Your task to perform on an android device: Do I have any events tomorrow? Image 0: 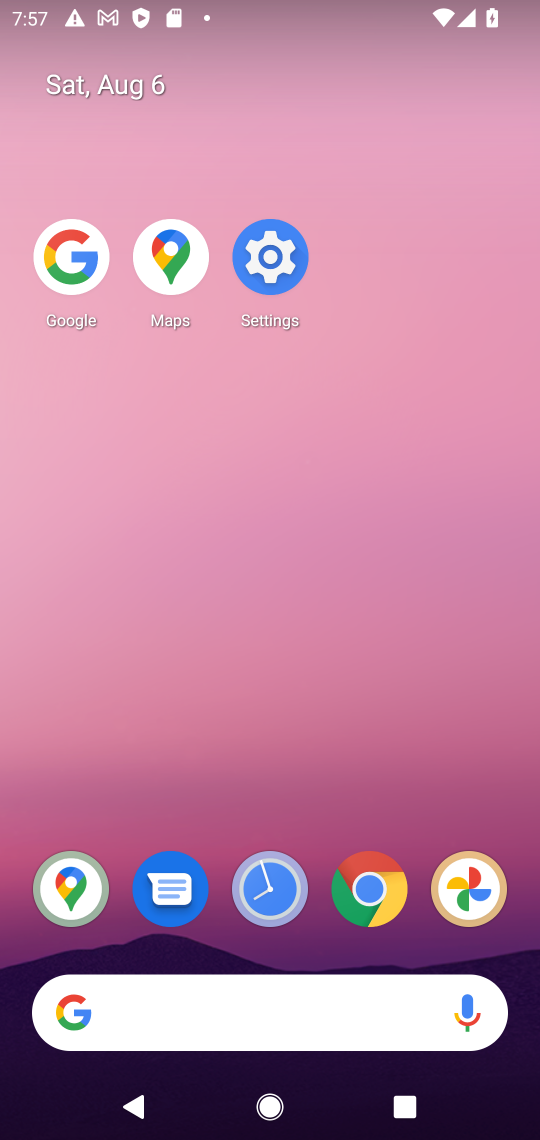
Step 0: drag from (192, 476) to (255, 209)
Your task to perform on an android device: Do I have any events tomorrow? Image 1: 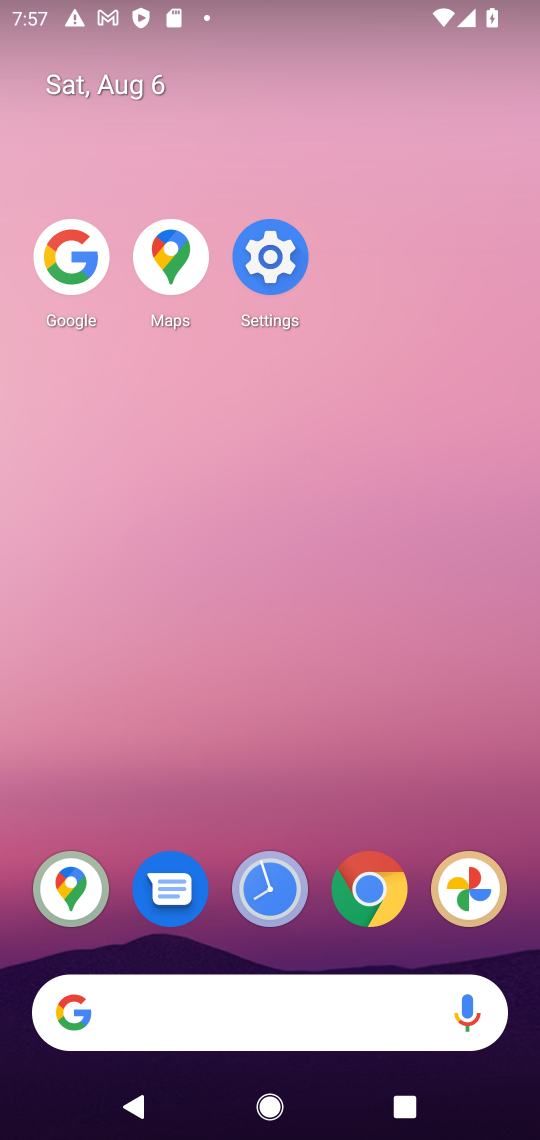
Step 1: drag from (261, 801) to (330, 238)
Your task to perform on an android device: Do I have any events tomorrow? Image 2: 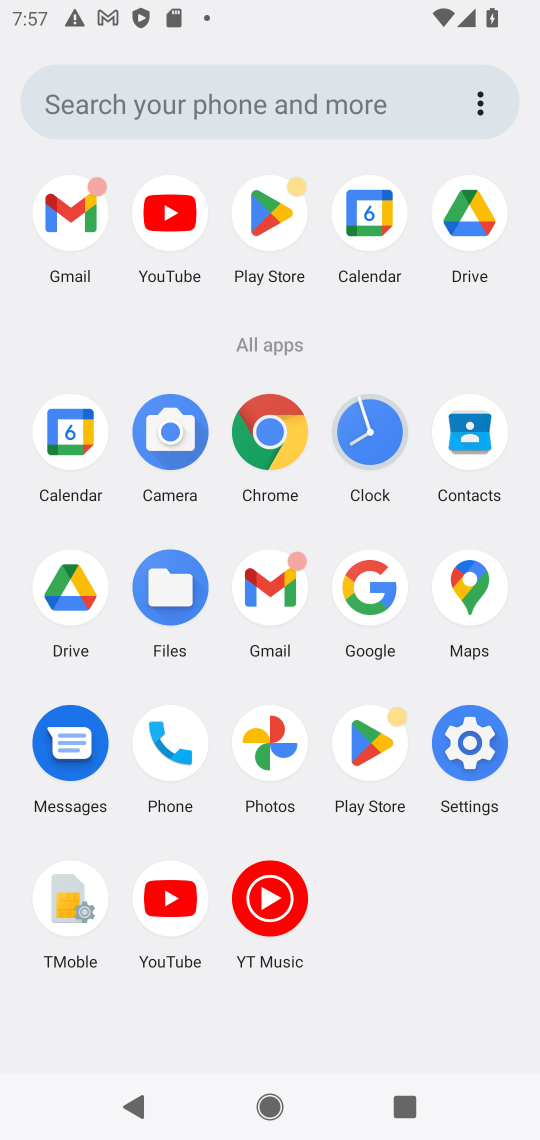
Step 2: click (358, 194)
Your task to perform on an android device: Do I have any events tomorrow? Image 3: 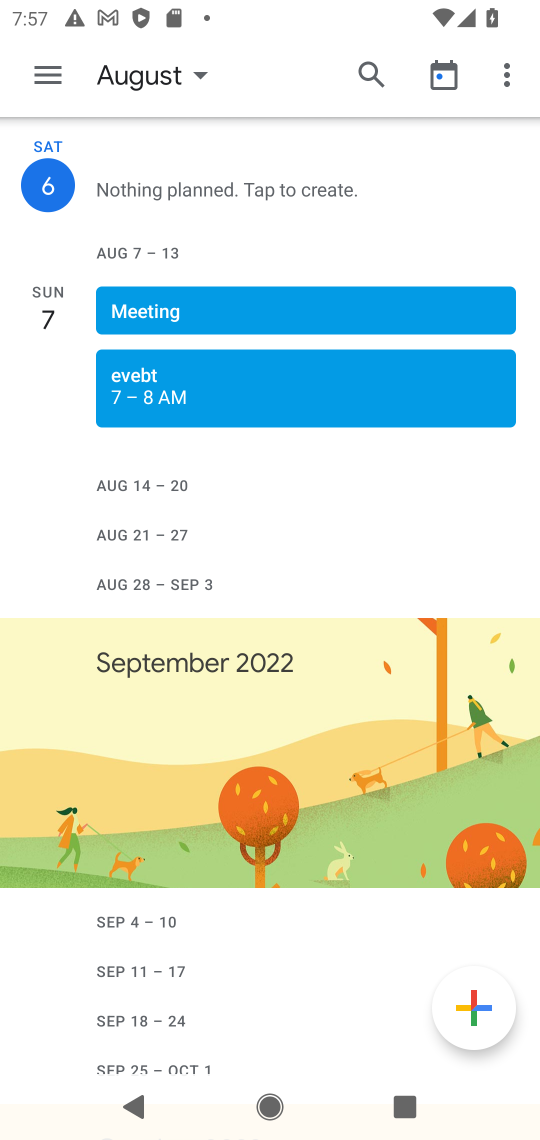
Step 3: click (47, 327)
Your task to perform on an android device: Do I have any events tomorrow? Image 4: 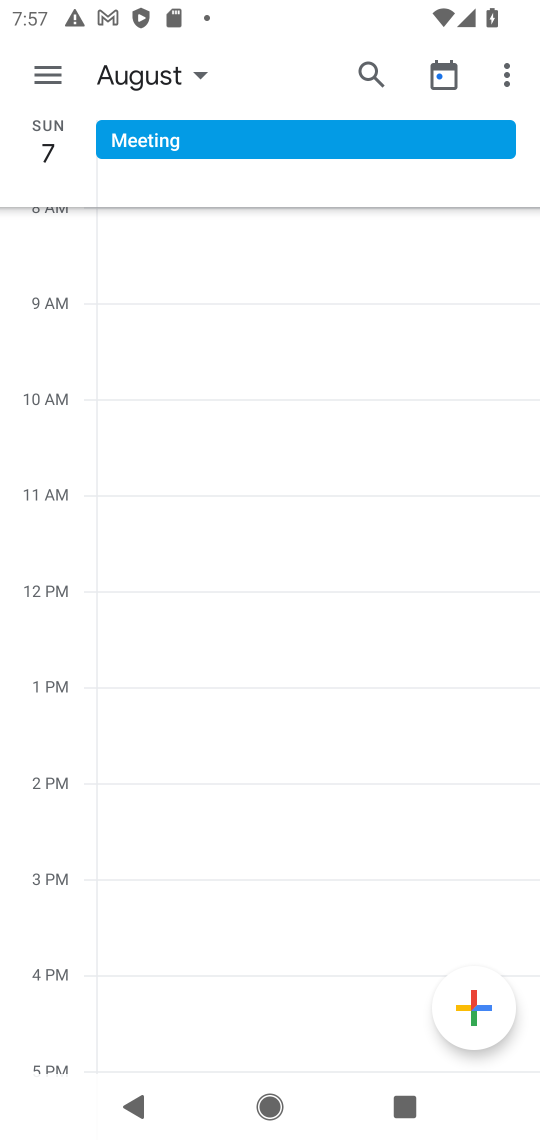
Step 4: task complete